Your task to perform on an android device: Go to internet settings Image 0: 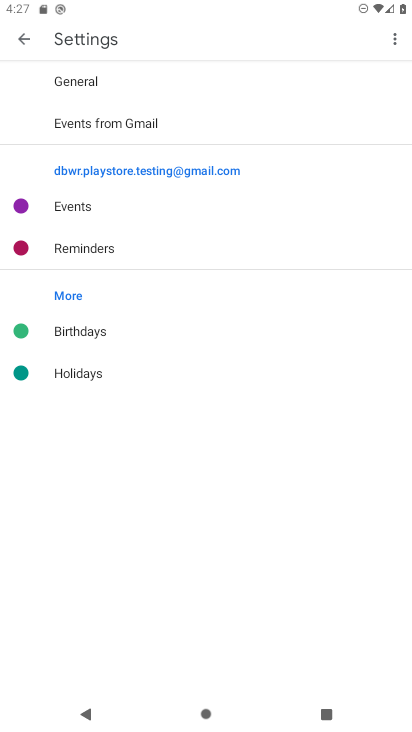
Step 0: press home button
Your task to perform on an android device: Go to internet settings Image 1: 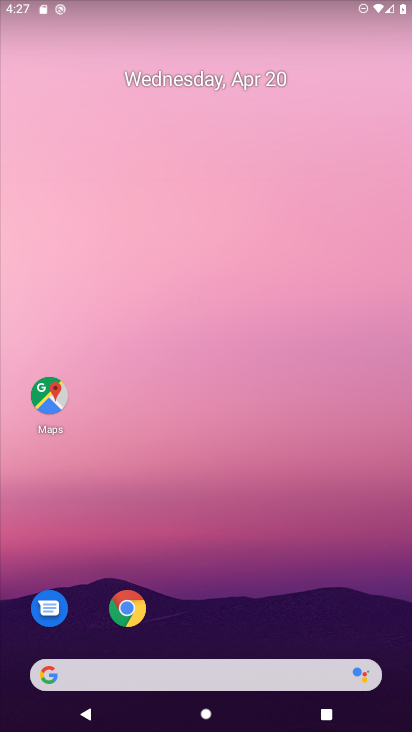
Step 1: drag from (238, 632) to (212, 37)
Your task to perform on an android device: Go to internet settings Image 2: 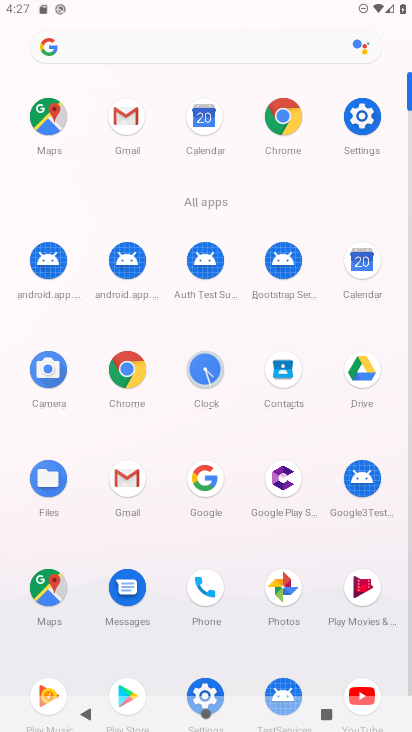
Step 2: click (360, 114)
Your task to perform on an android device: Go to internet settings Image 3: 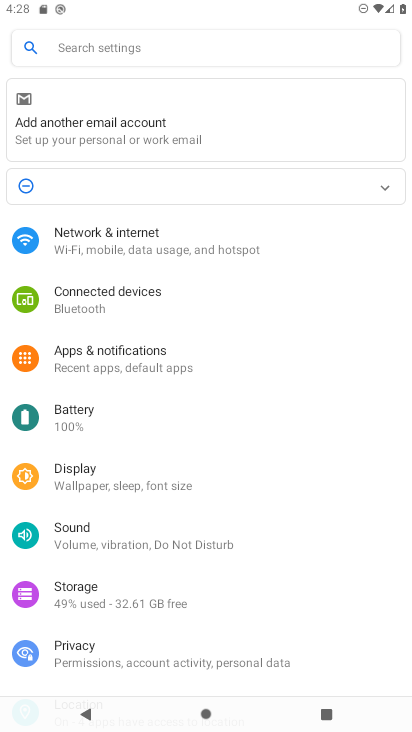
Step 3: click (141, 240)
Your task to perform on an android device: Go to internet settings Image 4: 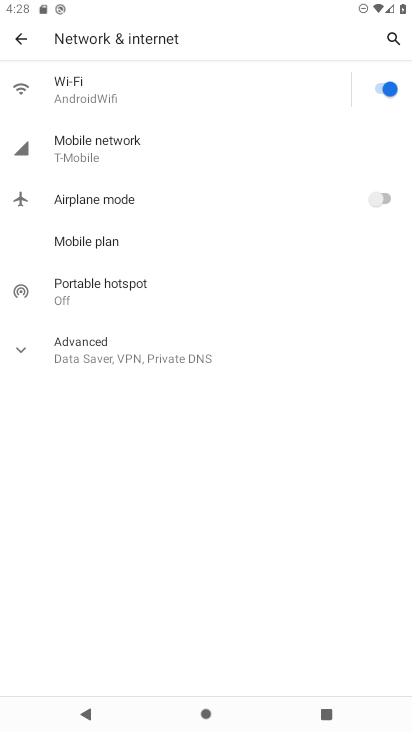
Step 4: task complete